Your task to perform on an android device: remove spam from my inbox in the gmail app Image 0: 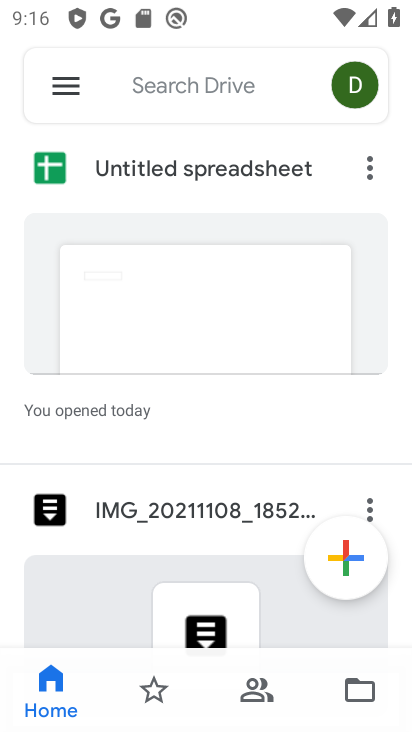
Step 0: press home button
Your task to perform on an android device: remove spam from my inbox in the gmail app Image 1: 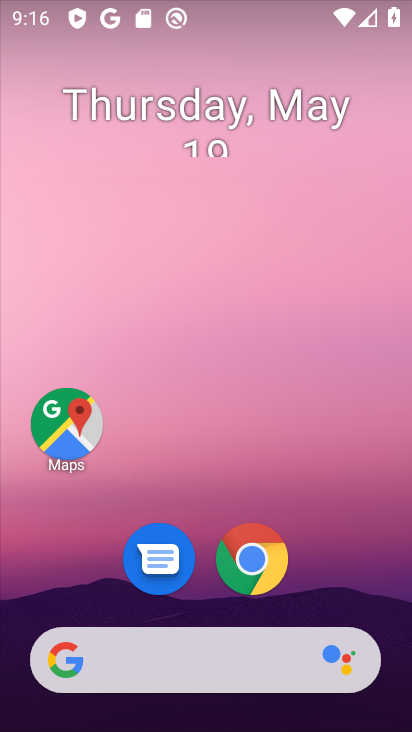
Step 1: drag from (373, 511) to (397, 116)
Your task to perform on an android device: remove spam from my inbox in the gmail app Image 2: 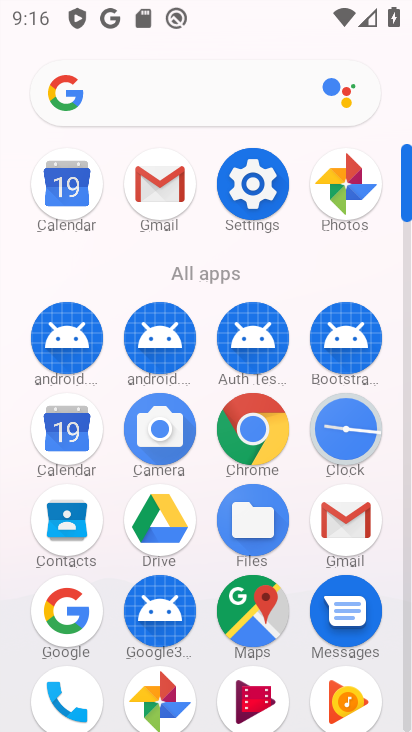
Step 2: click (166, 191)
Your task to perform on an android device: remove spam from my inbox in the gmail app Image 3: 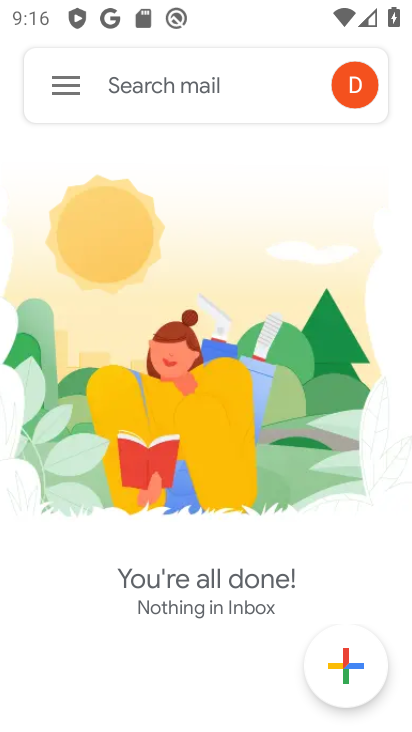
Step 3: click (66, 96)
Your task to perform on an android device: remove spam from my inbox in the gmail app Image 4: 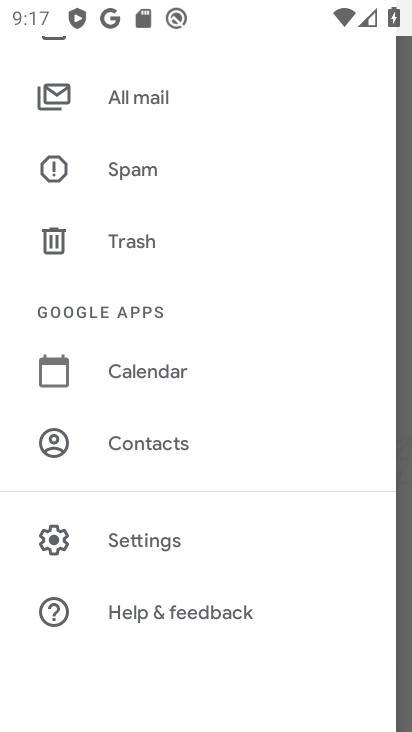
Step 4: drag from (190, 194) to (188, 656)
Your task to perform on an android device: remove spam from my inbox in the gmail app Image 5: 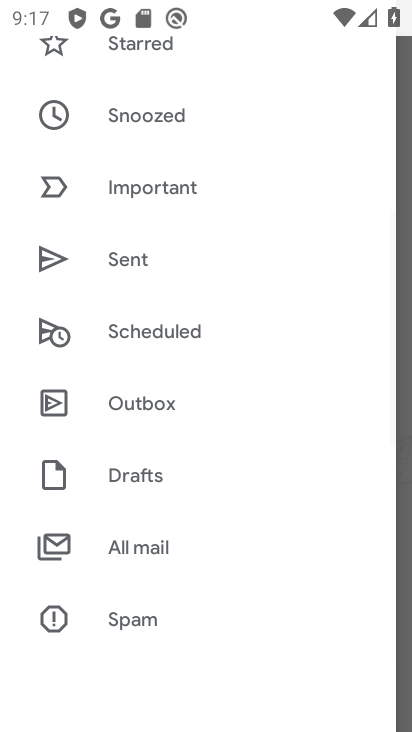
Step 5: drag from (209, 177) to (185, 520)
Your task to perform on an android device: remove spam from my inbox in the gmail app Image 6: 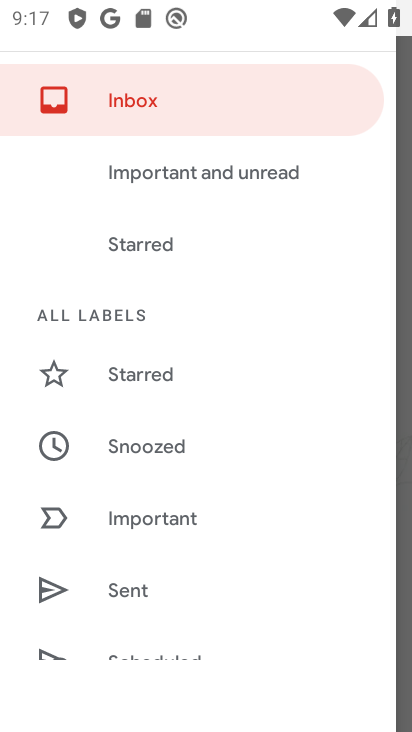
Step 6: drag from (158, 570) to (255, 654)
Your task to perform on an android device: remove spam from my inbox in the gmail app Image 7: 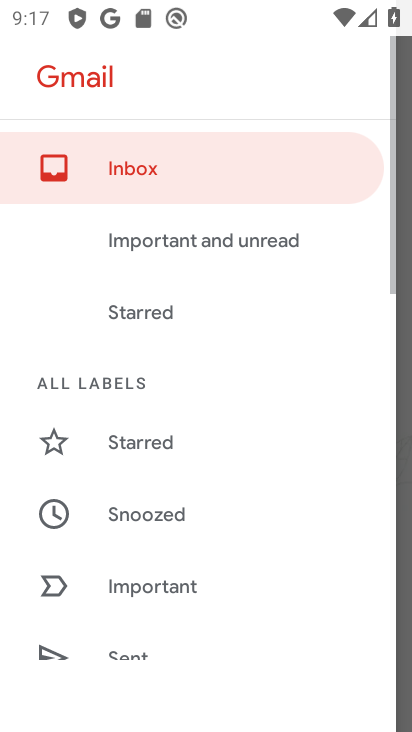
Step 7: click (255, 176)
Your task to perform on an android device: remove spam from my inbox in the gmail app Image 8: 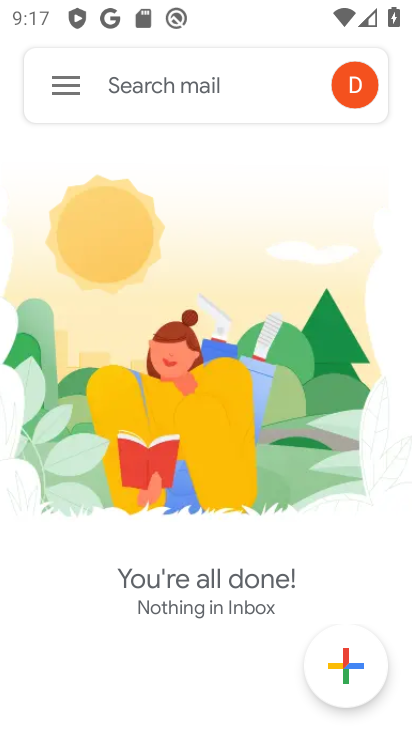
Step 8: task complete